Your task to perform on an android device: open chrome privacy settings Image 0: 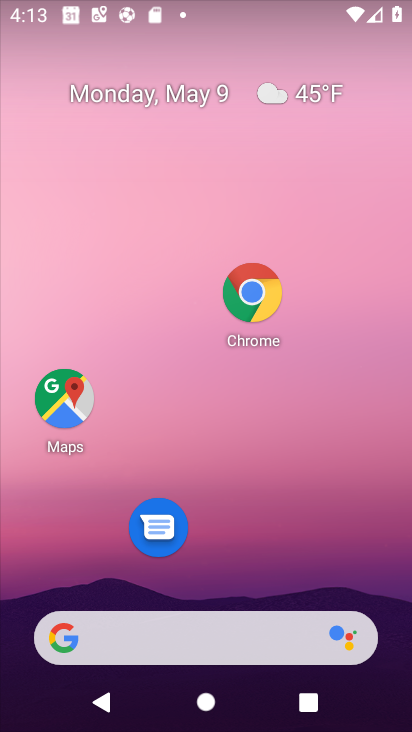
Step 0: drag from (325, 598) to (324, 146)
Your task to perform on an android device: open chrome privacy settings Image 1: 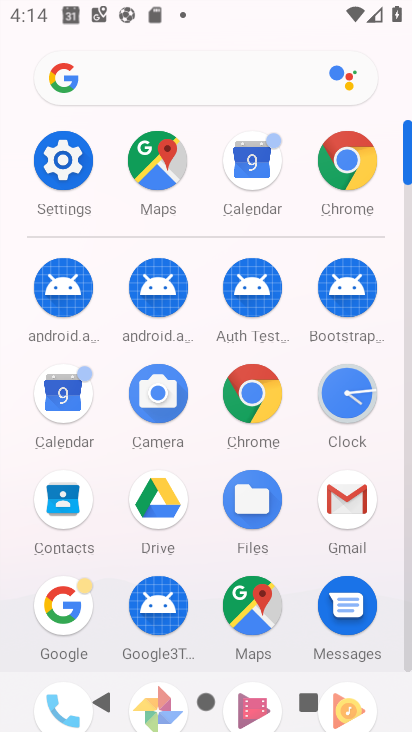
Step 1: click (69, 176)
Your task to perform on an android device: open chrome privacy settings Image 2: 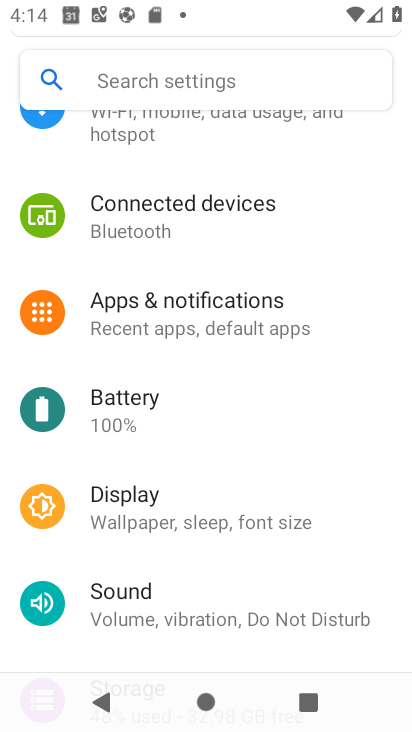
Step 2: drag from (206, 378) to (224, 251)
Your task to perform on an android device: open chrome privacy settings Image 3: 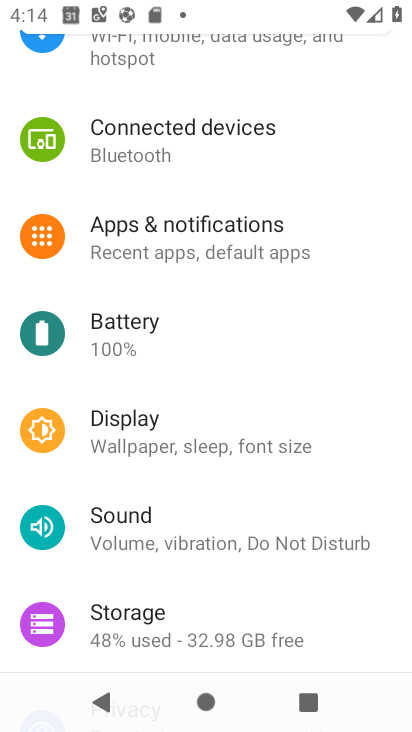
Step 3: drag from (199, 601) to (207, 465)
Your task to perform on an android device: open chrome privacy settings Image 4: 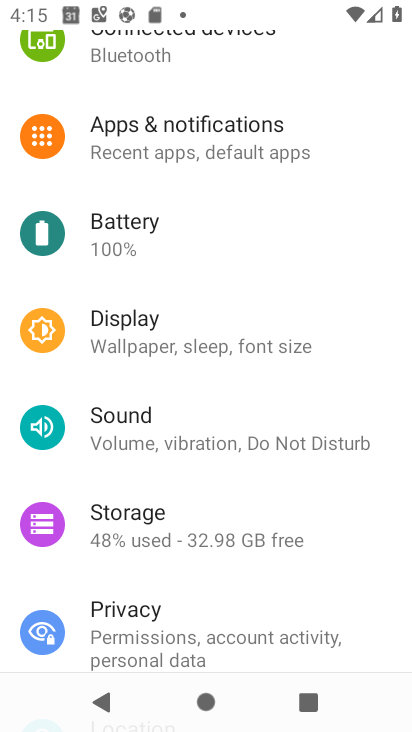
Step 4: click (204, 615)
Your task to perform on an android device: open chrome privacy settings Image 5: 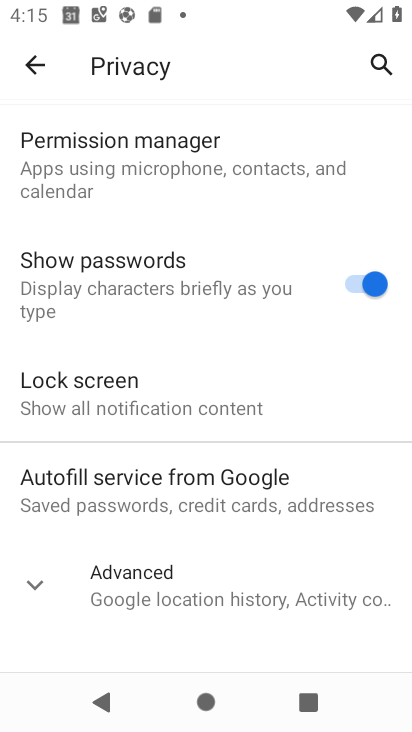
Step 5: task complete